Your task to perform on an android device: empty trash in google photos Image 0: 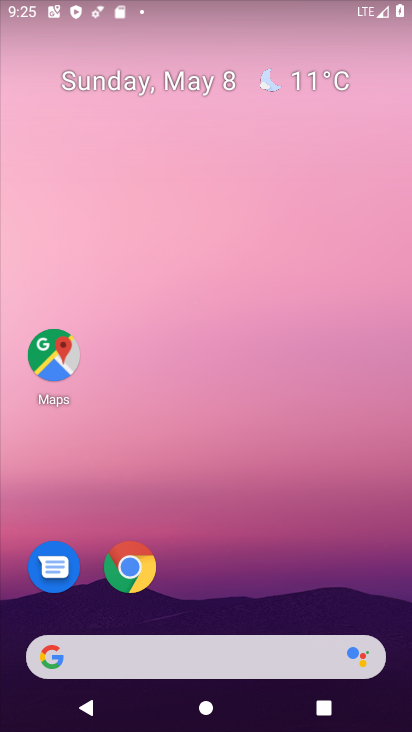
Step 0: drag from (153, 527) to (250, 22)
Your task to perform on an android device: empty trash in google photos Image 1: 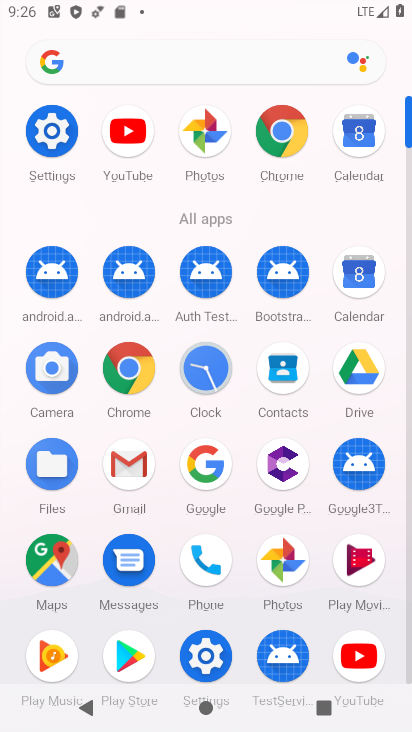
Step 1: click (281, 546)
Your task to perform on an android device: empty trash in google photos Image 2: 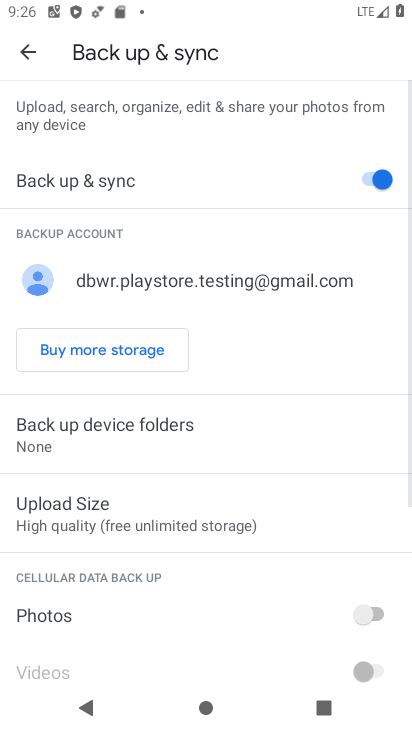
Step 2: click (29, 40)
Your task to perform on an android device: empty trash in google photos Image 3: 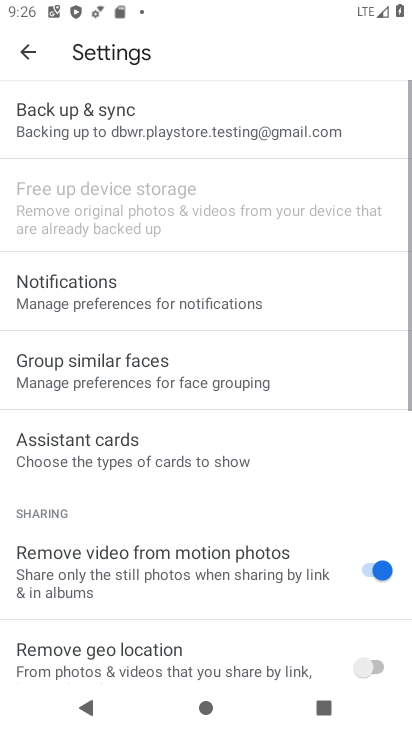
Step 3: click (34, 41)
Your task to perform on an android device: empty trash in google photos Image 4: 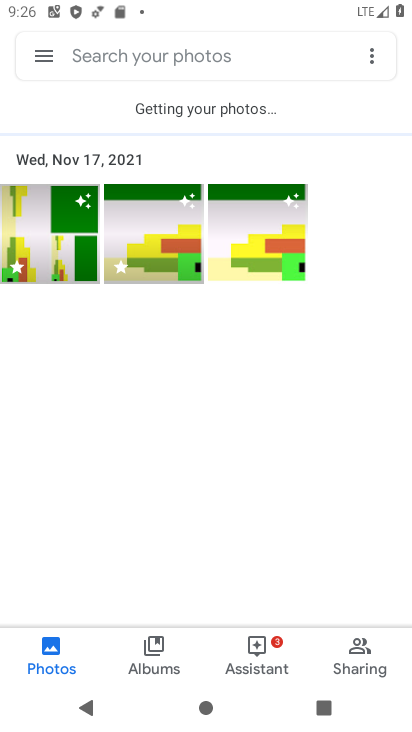
Step 4: click (43, 52)
Your task to perform on an android device: empty trash in google photos Image 5: 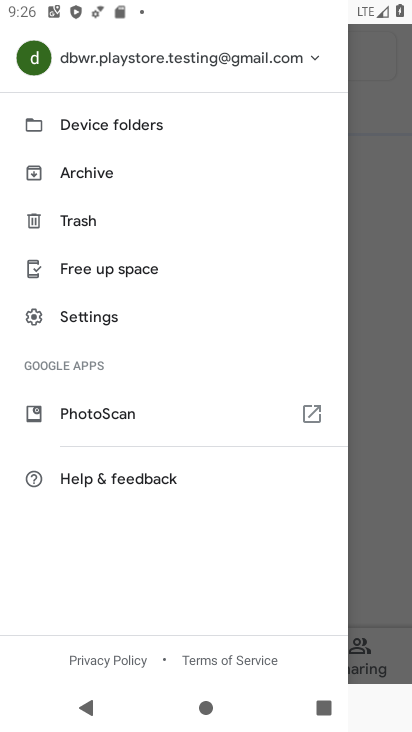
Step 5: click (89, 222)
Your task to perform on an android device: empty trash in google photos Image 6: 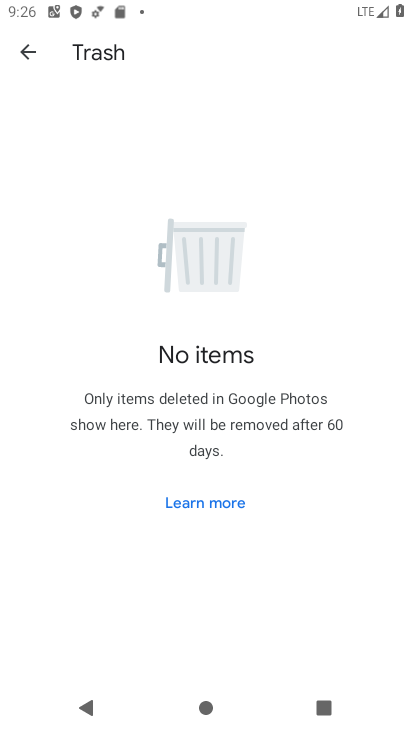
Step 6: task complete